Your task to perform on an android device: Go to location settings Image 0: 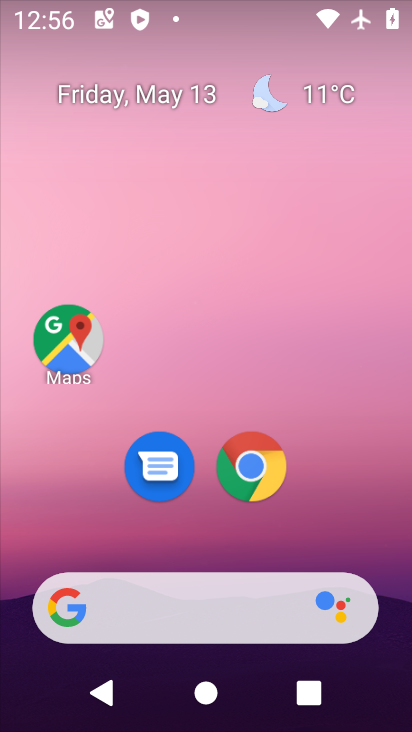
Step 0: drag from (327, 551) to (396, 1)
Your task to perform on an android device: Go to location settings Image 1: 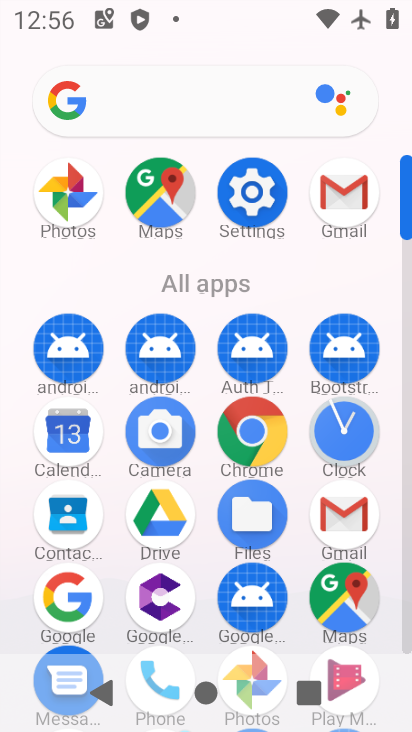
Step 1: click (264, 188)
Your task to perform on an android device: Go to location settings Image 2: 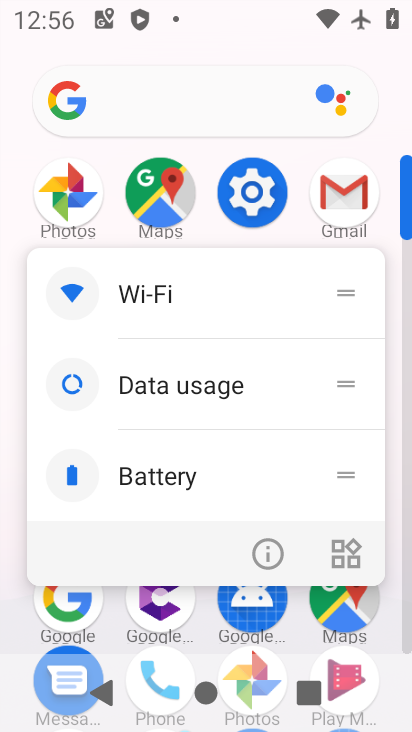
Step 2: click (257, 199)
Your task to perform on an android device: Go to location settings Image 3: 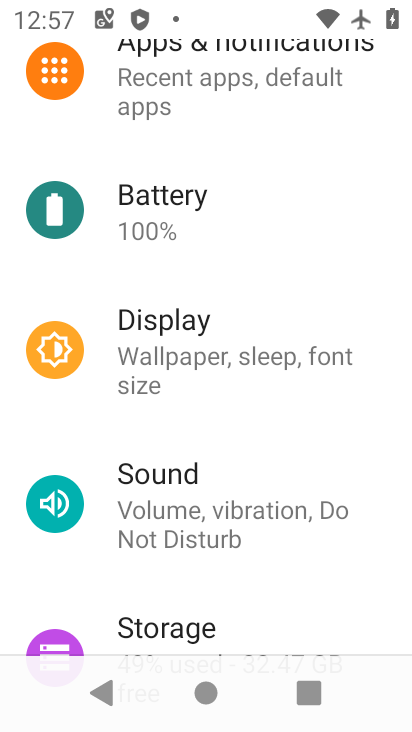
Step 3: drag from (159, 551) to (220, 243)
Your task to perform on an android device: Go to location settings Image 4: 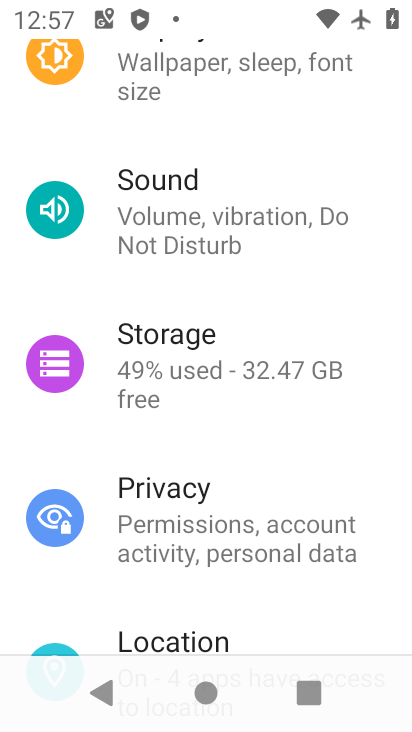
Step 4: drag from (175, 562) to (198, 345)
Your task to perform on an android device: Go to location settings Image 5: 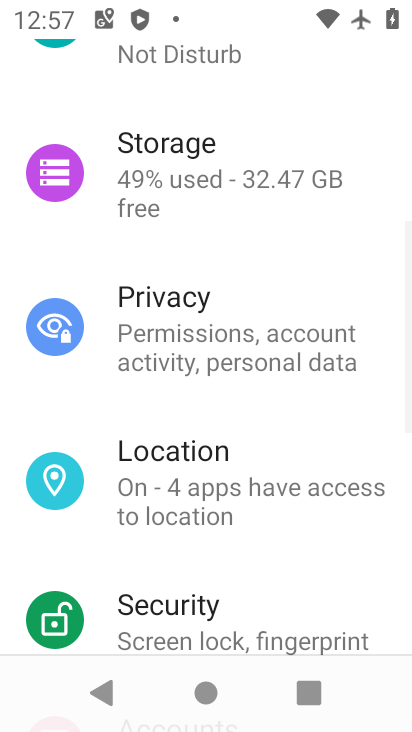
Step 5: click (181, 503)
Your task to perform on an android device: Go to location settings Image 6: 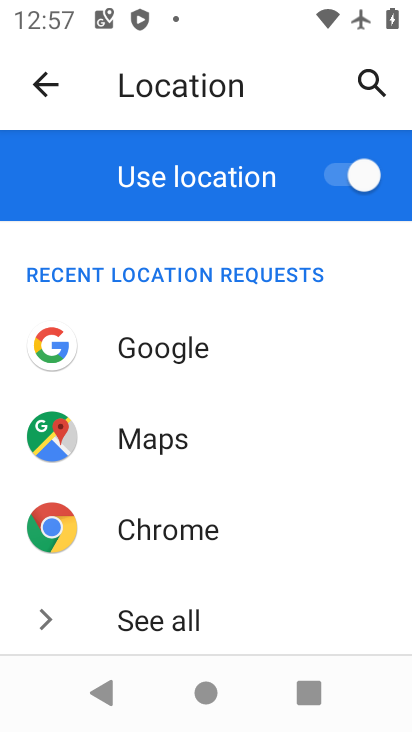
Step 6: task complete